Your task to perform on an android device: turn off sleep mode Image 0: 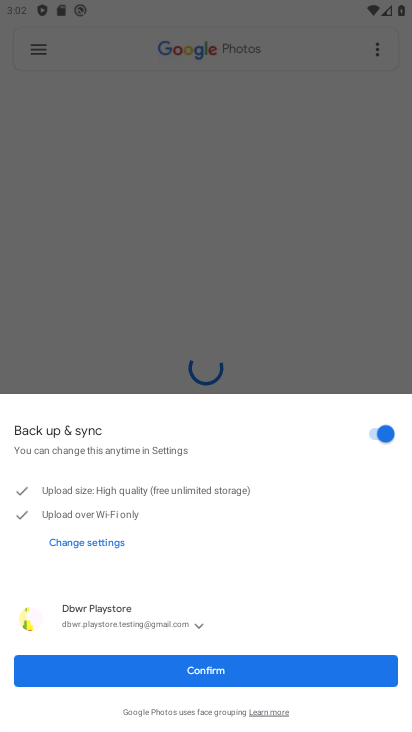
Step 0: click (192, 662)
Your task to perform on an android device: turn off sleep mode Image 1: 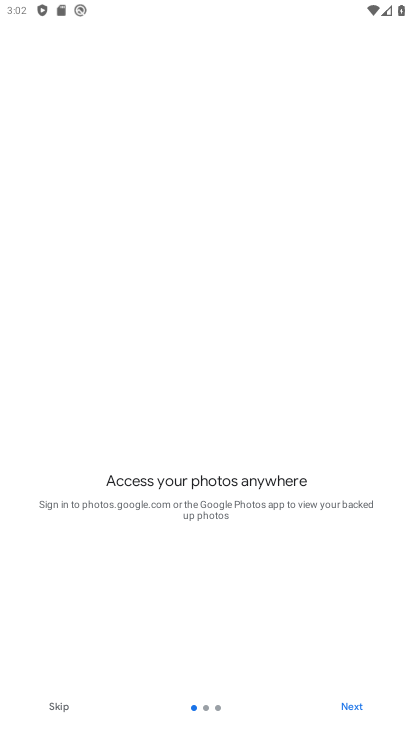
Step 1: press home button
Your task to perform on an android device: turn off sleep mode Image 2: 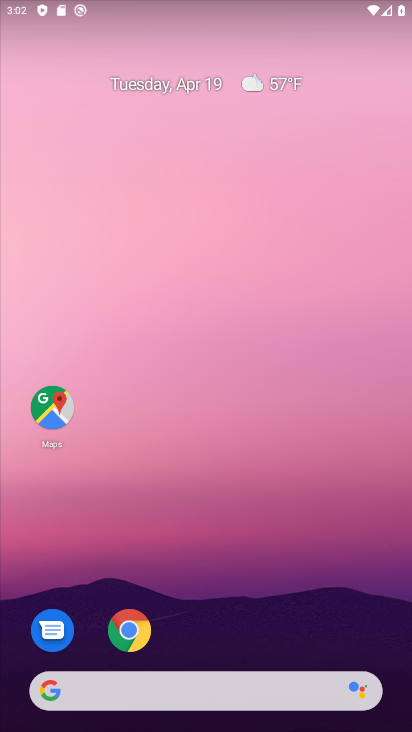
Step 2: drag from (225, 501) to (257, 196)
Your task to perform on an android device: turn off sleep mode Image 3: 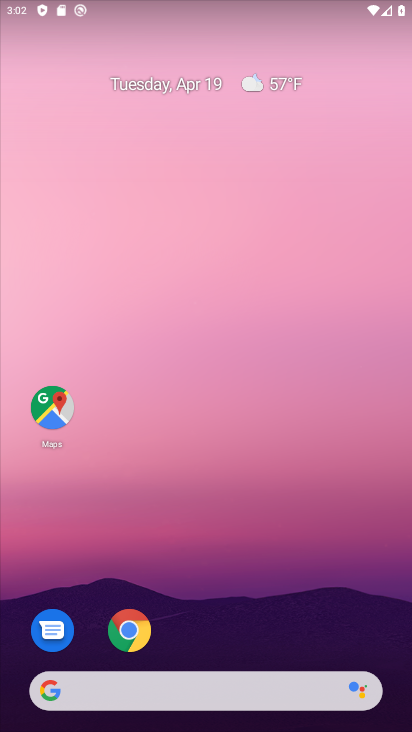
Step 3: drag from (199, 626) to (204, 172)
Your task to perform on an android device: turn off sleep mode Image 4: 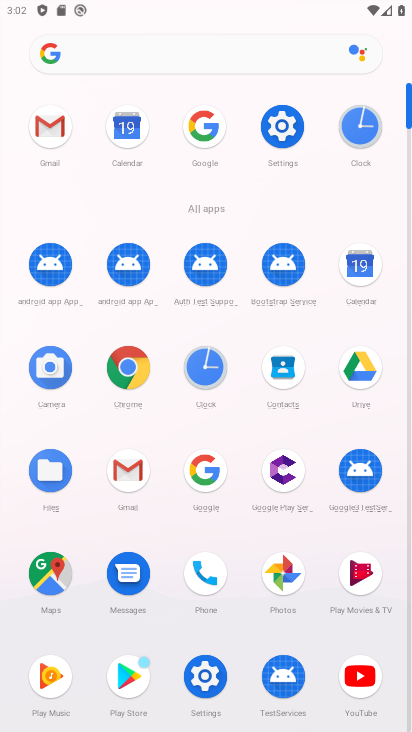
Step 4: click (274, 145)
Your task to perform on an android device: turn off sleep mode Image 5: 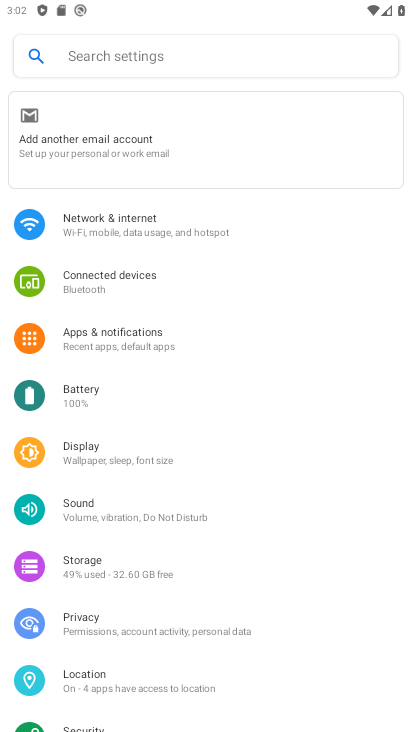
Step 5: click (87, 453)
Your task to perform on an android device: turn off sleep mode Image 6: 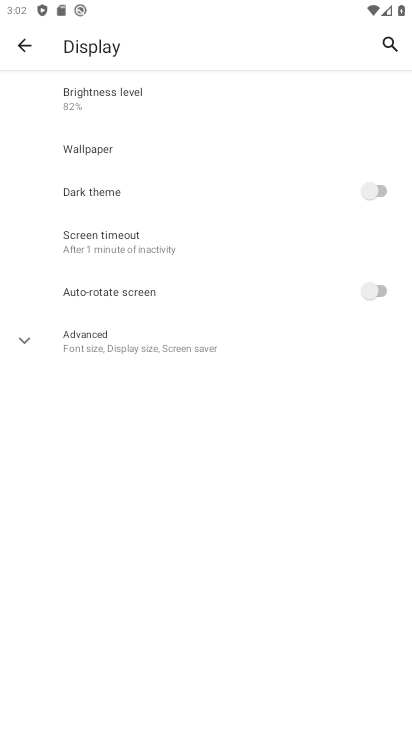
Step 6: click (113, 341)
Your task to perform on an android device: turn off sleep mode Image 7: 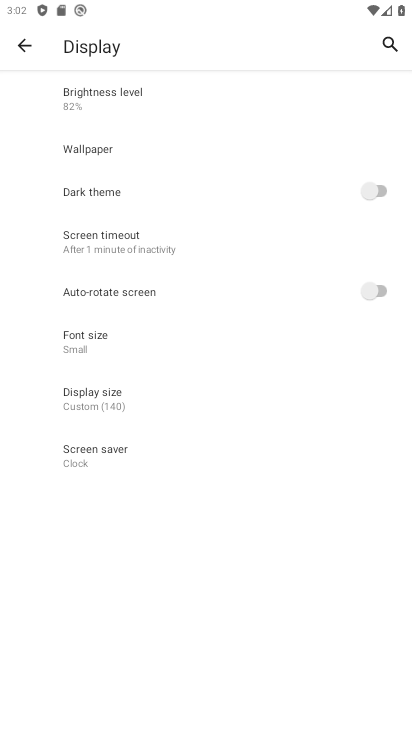
Step 7: click (119, 254)
Your task to perform on an android device: turn off sleep mode Image 8: 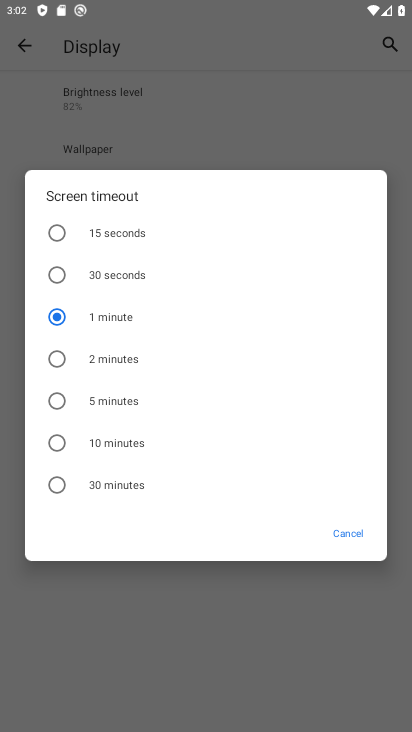
Step 8: drag from (141, 410) to (129, 445)
Your task to perform on an android device: turn off sleep mode Image 9: 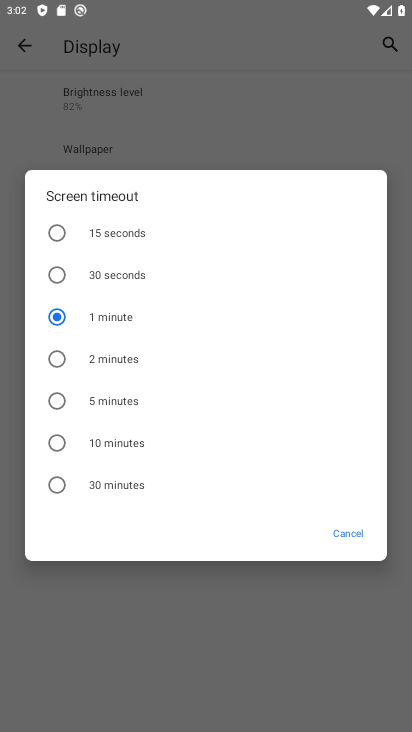
Step 9: click (134, 443)
Your task to perform on an android device: turn off sleep mode Image 10: 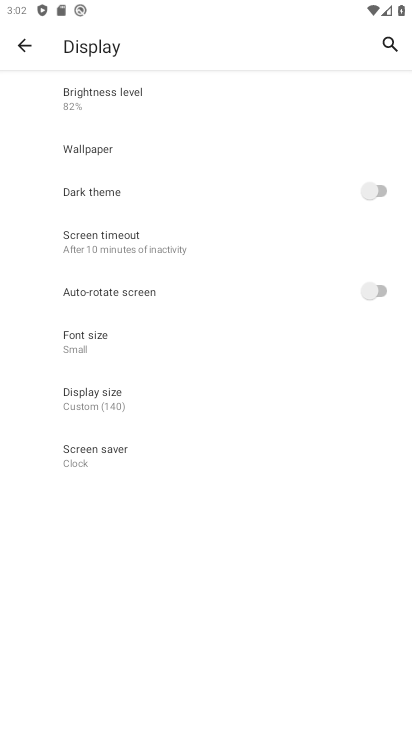
Step 10: task complete